Your task to perform on an android device: Go to internet settings Image 0: 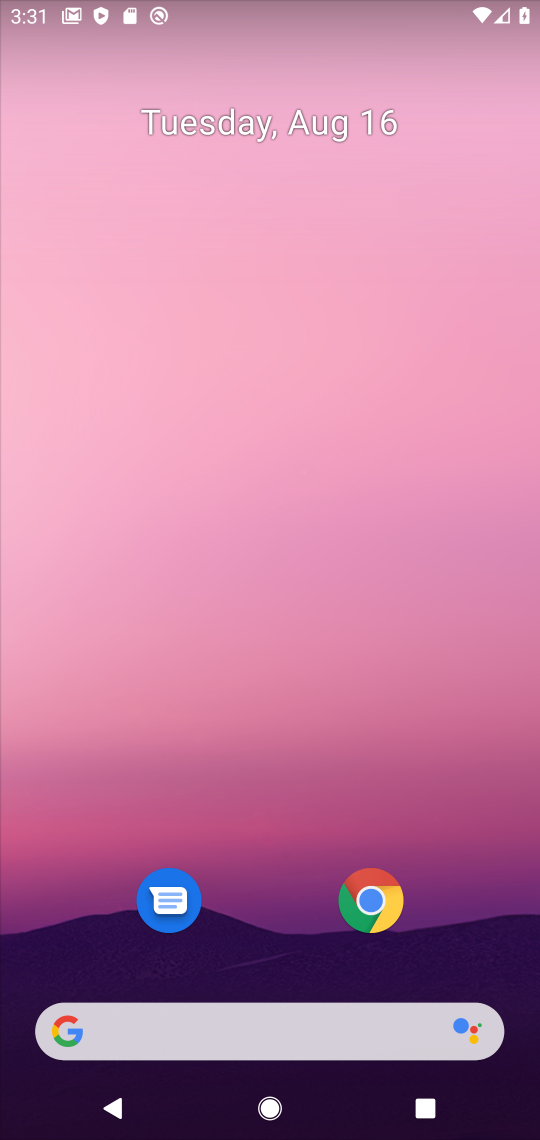
Step 0: drag from (256, 990) to (322, 128)
Your task to perform on an android device: Go to internet settings Image 1: 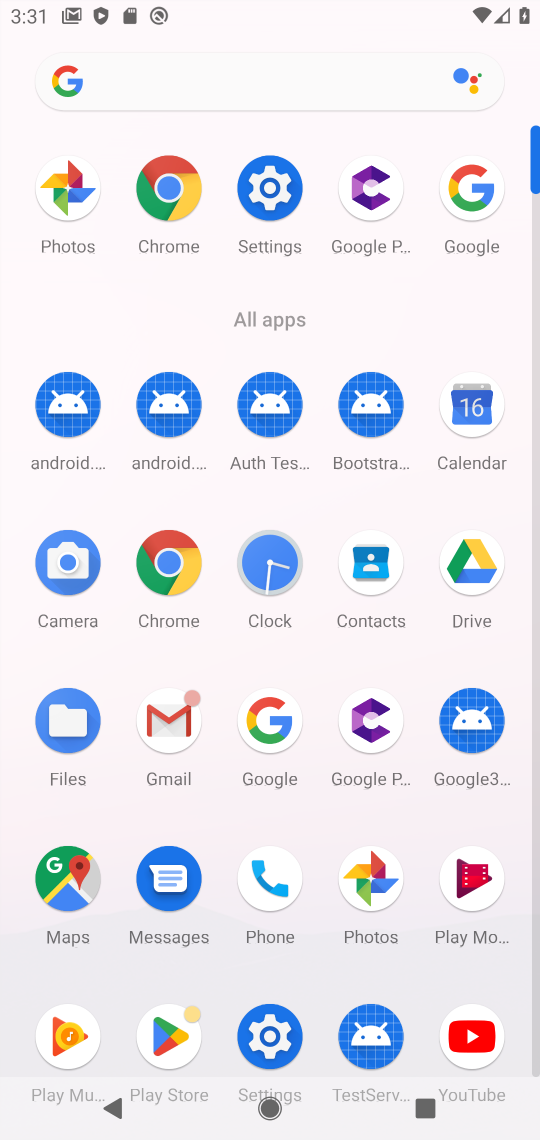
Step 1: click (259, 194)
Your task to perform on an android device: Go to internet settings Image 2: 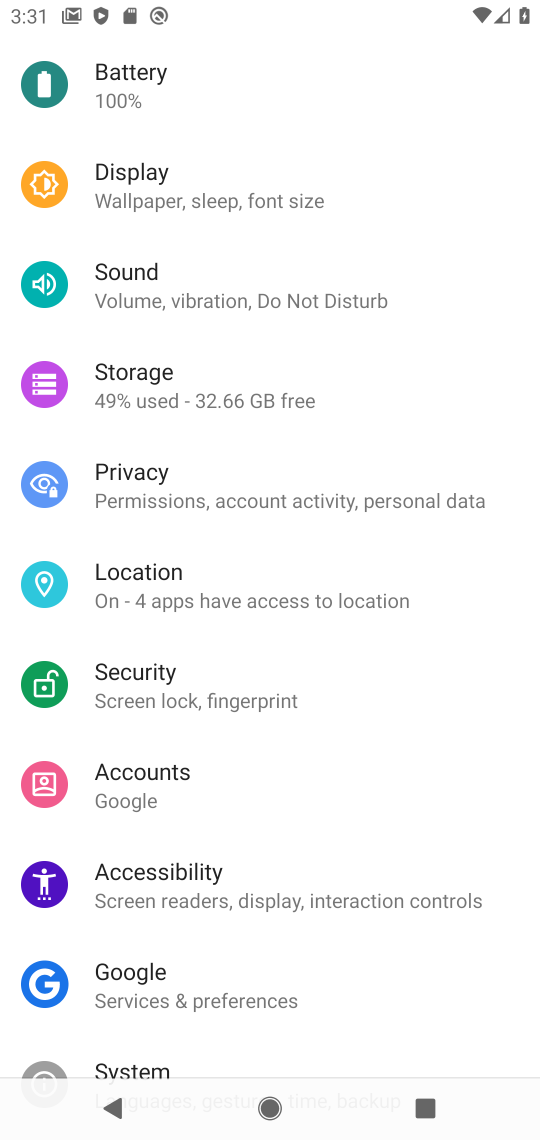
Step 2: drag from (236, 165) to (231, 842)
Your task to perform on an android device: Go to internet settings Image 3: 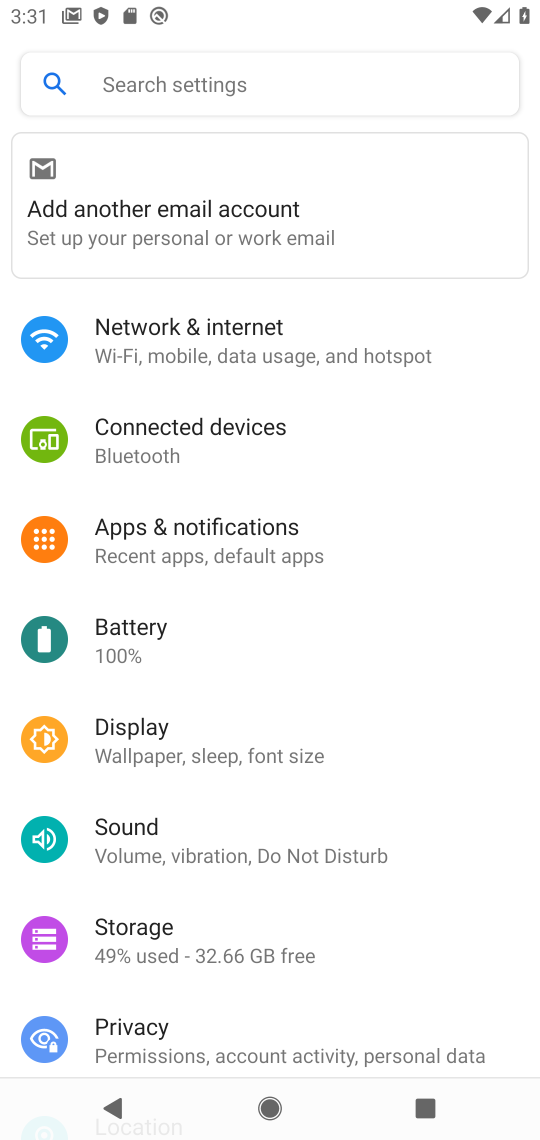
Step 3: click (184, 350)
Your task to perform on an android device: Go to internet settings Image 4: 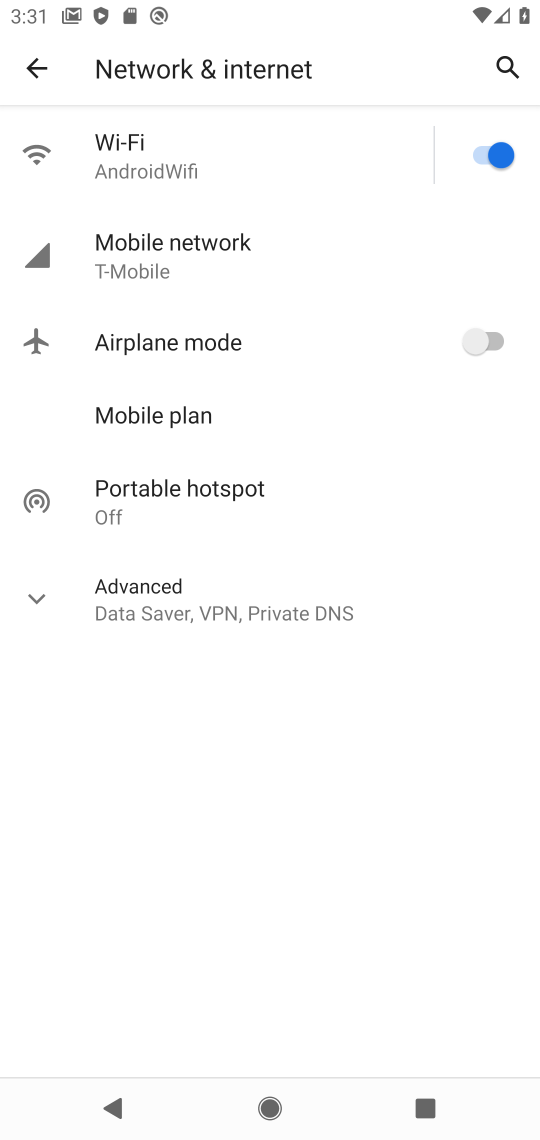
Step 4: task complete